Your task to perform on an android device: refresh tabs in the chrome app Image 0: 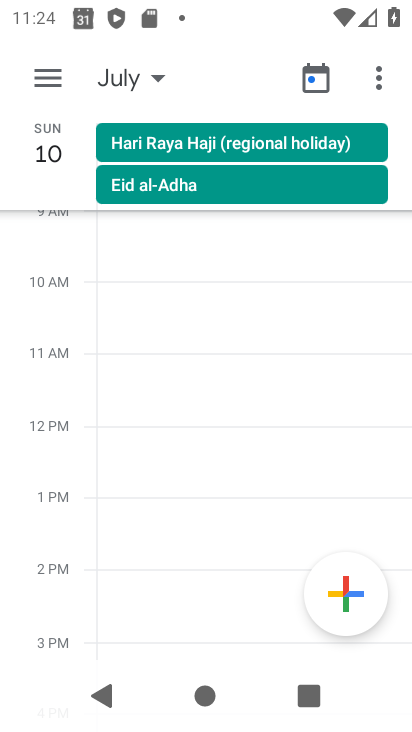
Step 0: press home button
Your task to perform on an android device: refresh tabs in the chrome app Image 1: 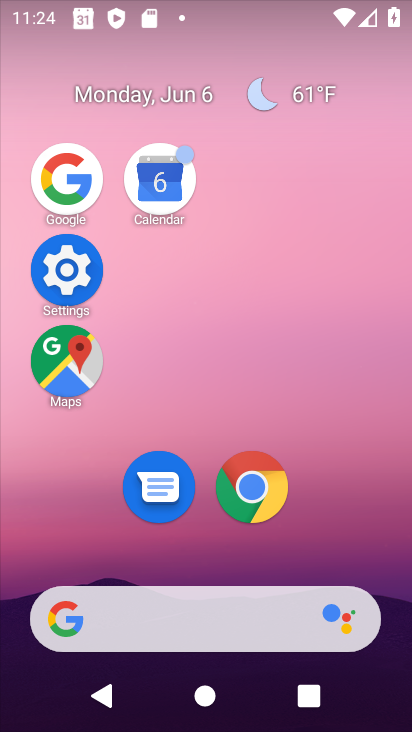
Step 1: click (251, 483)
Your task to perform on an android device: refresh tabs in the chrome app Image 2: 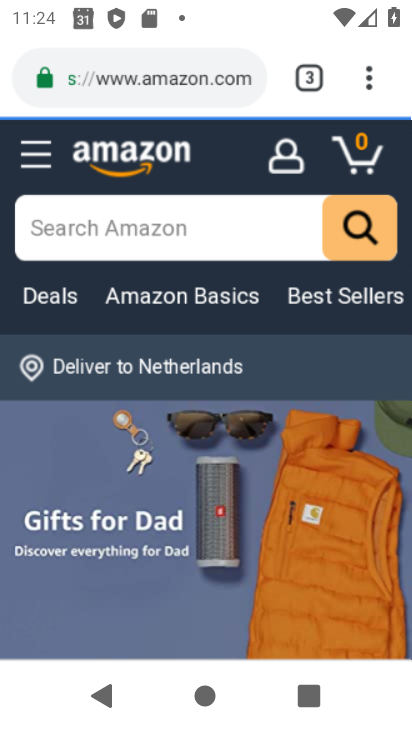
Step 2: click (370, 87)
Your task to perform on an android device: refresh tabs in the chrome app Image 3: 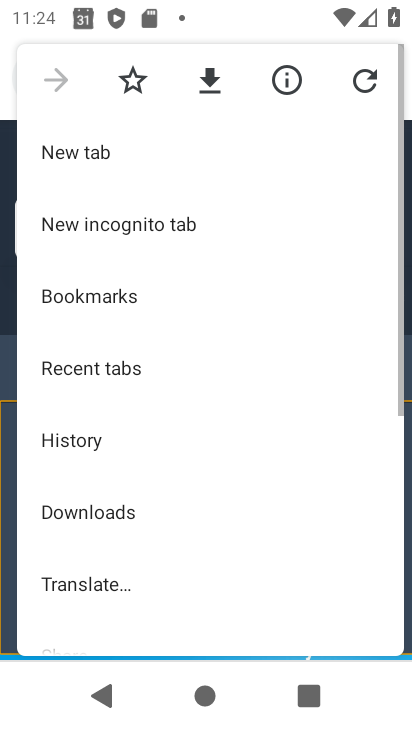
Step 3: click (373, 87)
Your task to perform on an android device: refresh tabs in the chrome app Image 4: 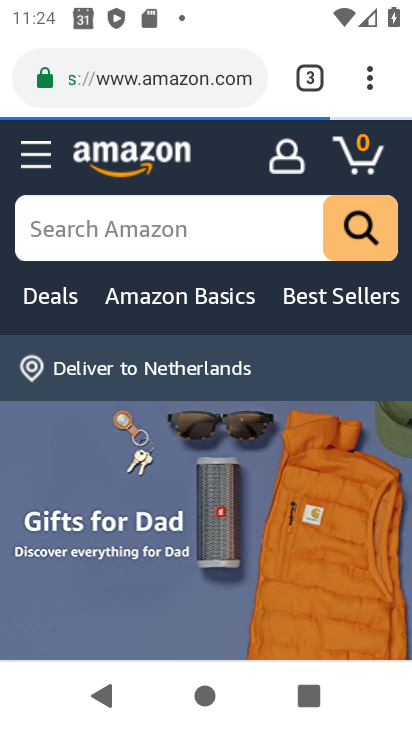
Step 4: task complete